Your task to perform on an android device: Go to battery settings Image 0: 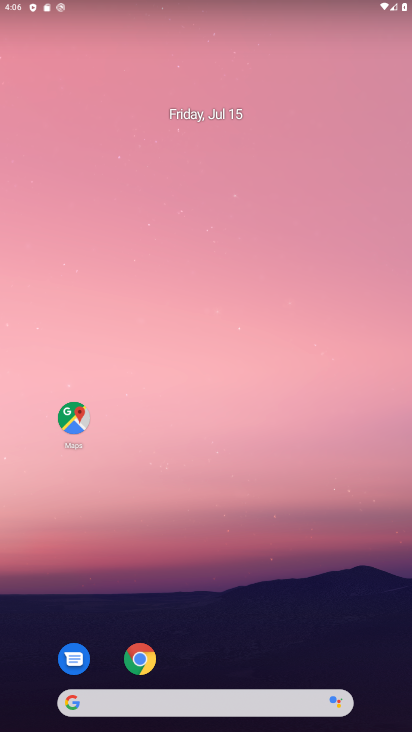
Step 0: drag from (189, 643) to (244, 13)
Your task to perform on an android device: Go to battery settings Image 1: 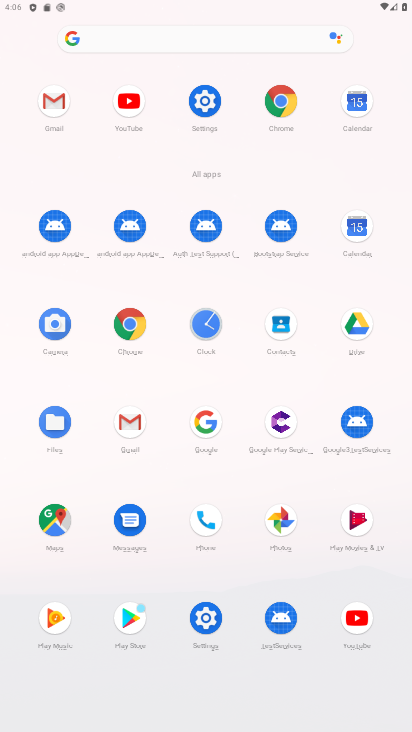
Step 1: click (206, 101)
Your task to perform on an android device: Go to battery settings Image 2: 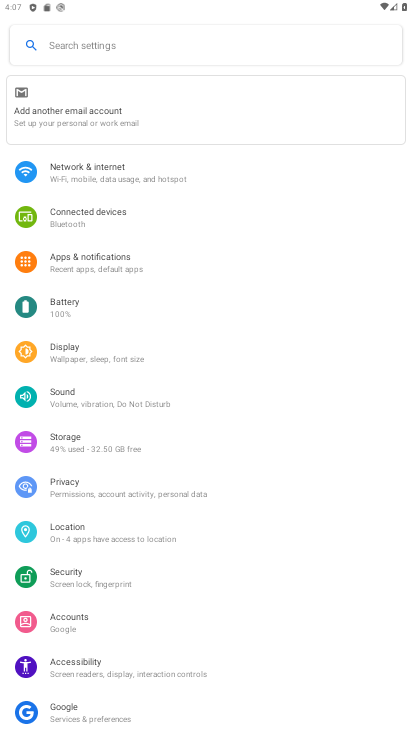
Step 2: click (36, 308)
Your task to perform on an android device: Go to battery settings Image 3: 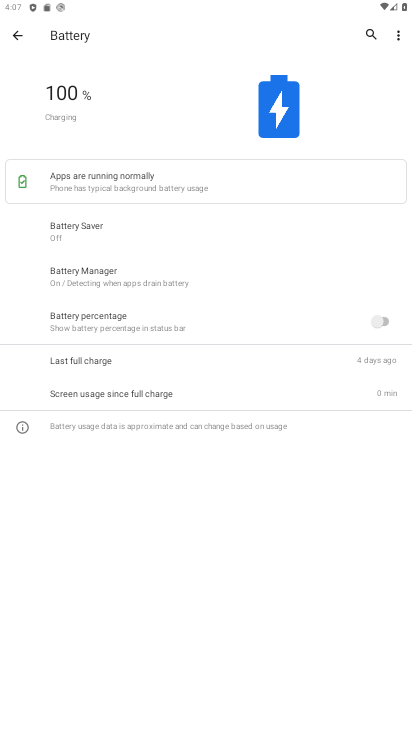
Step 3: task complete